Your task to perform on an android device: turn off notifications settings in the gmail app Image 0: 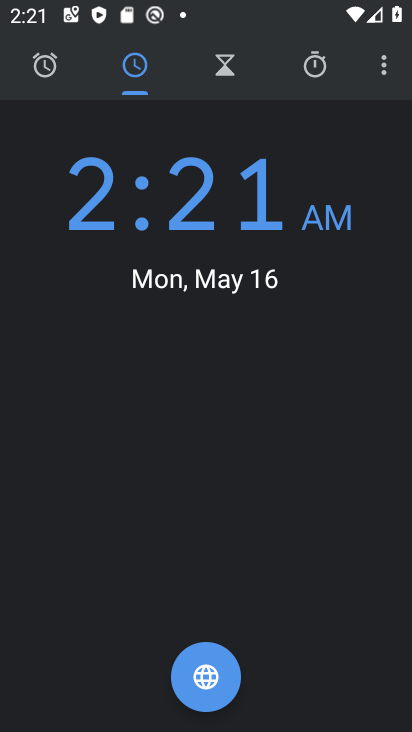
Step 0: press back button
Your task to perform on an android device: turn off notifications settings in the gmail app Image 1: 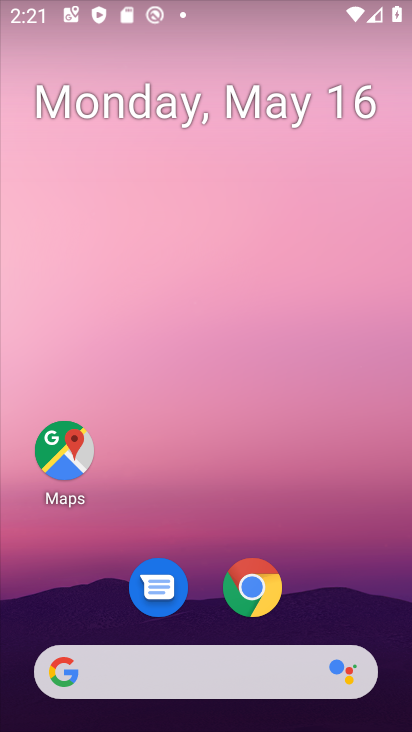
Step 1: drag from (307, 689) to (207, 75)
Your task to perform on an android device: turn off notifications settings in the gmail app Image 2: 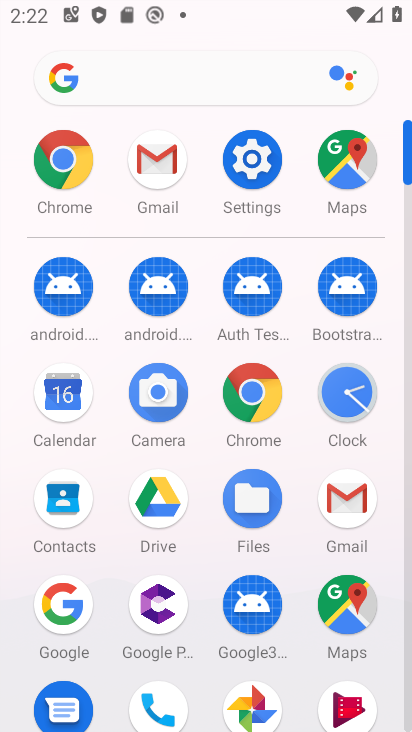
Step 2: click (329, 491)
Your task to perform on an android device: turn off notifications settings in the gmail app Image 3: 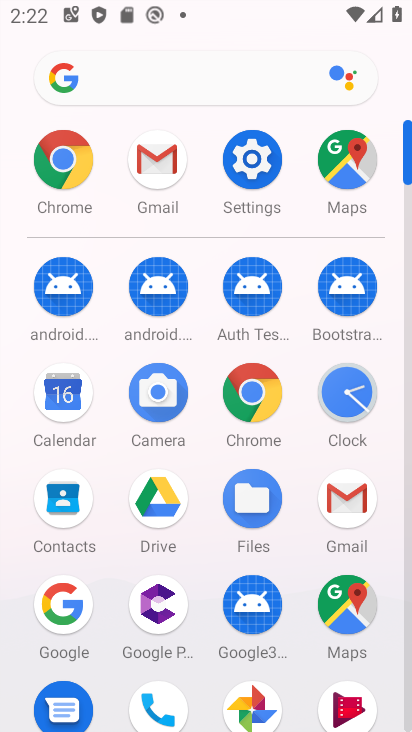
Step 3: click (330, 490)
Your task to perform on an android device: turn off notifications settings in the gmail app Image 4: 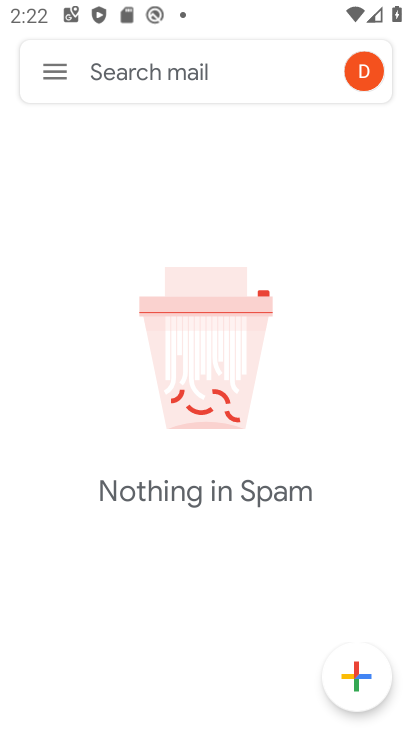
Step 4: click (53, 68)
Your task to perform on an android device: turn off notifications settings in the gmail app Image 5: 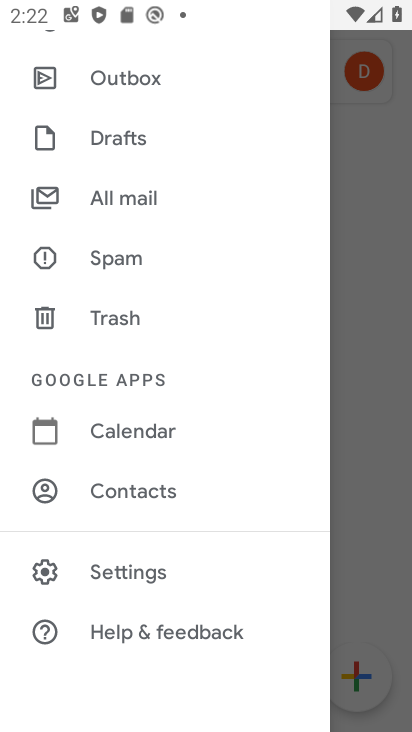
Step 5: click (115, 566)
Your task to perform on an android device: turn off notifications settings in the gmail app Image 6: 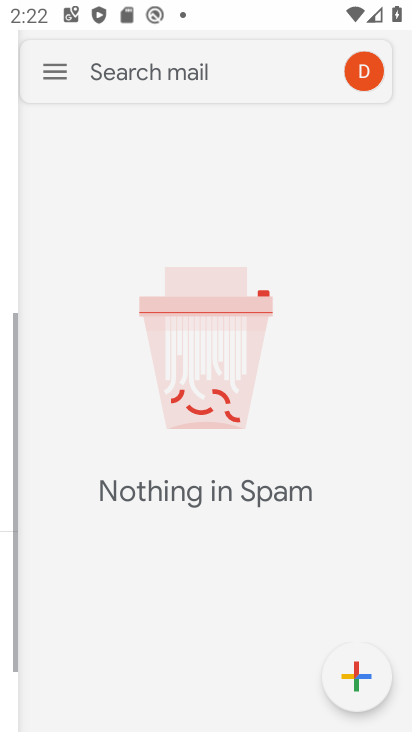
Step 6: click (116, 565)
Your task to perform on an android device: turn off notifications settings in the gmail app Image 7: 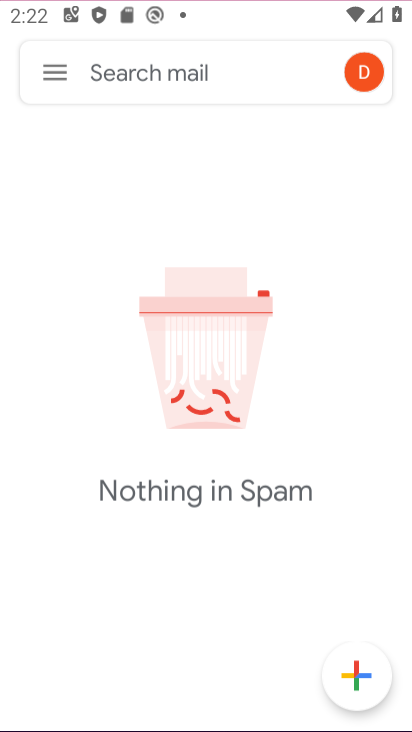
Step 7: click (116, 565)
Your task to perform on an android device: turn off notifications settings in the gmail app Image 8: 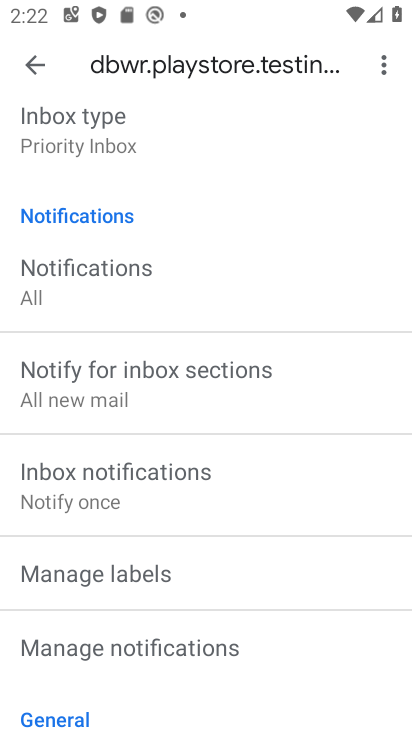
Step 8: click (98, 497)
Your task to perform on an android device: turn off notifications settings in the gmail app Image 9: 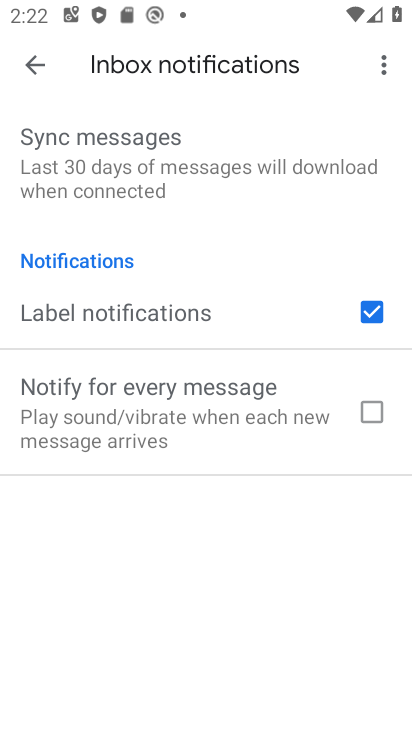
Step 9: click (35, 51)
Your task to perform on an android device: turn off notifications settings in the gmail app Image 10: 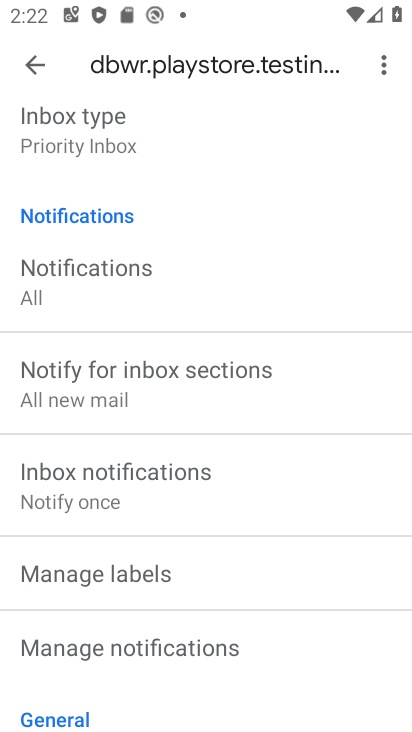
Step 10: click (54, 270)
Your task to perform on an android device: turn off notifications settings in the gmail app Image 11: 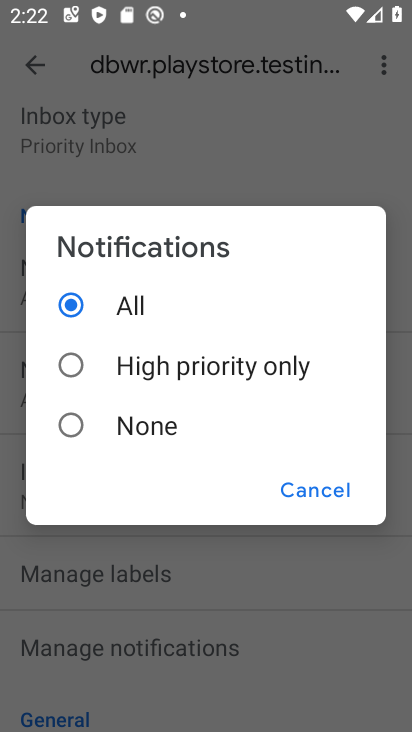
Step 11: click (73, 416)
Your task to perform on an android device: turn off notifications settings in the gmail app Image 12: 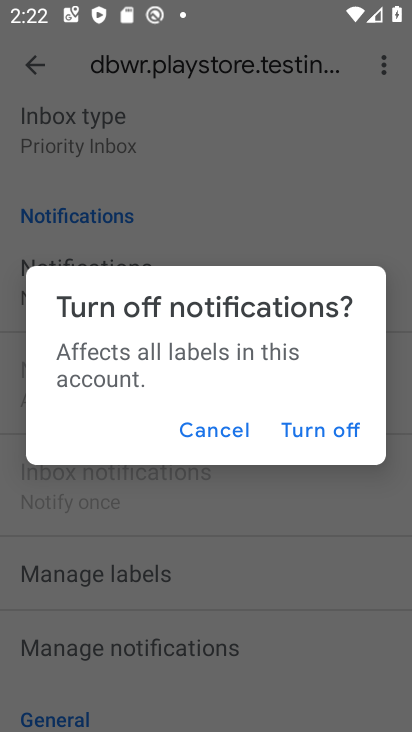
Step 12: click (312, 429)
Your task to perform on an android device: turn off notifications settings in the gmail app Image 13: 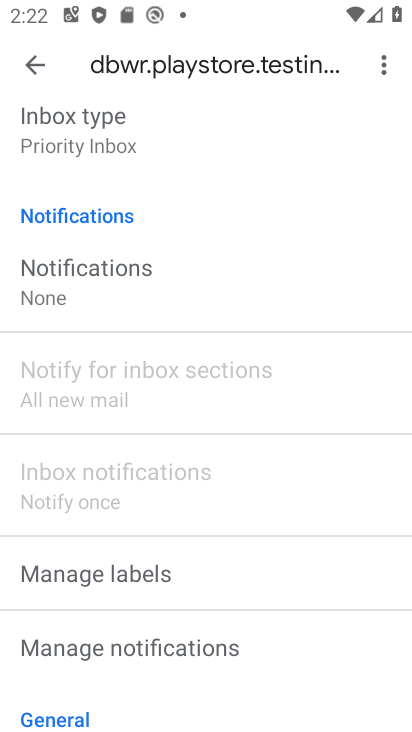
Step 13: task complete